Your task to perform on an android device: Open Google Chrome and open the bookmarks view Image 0: 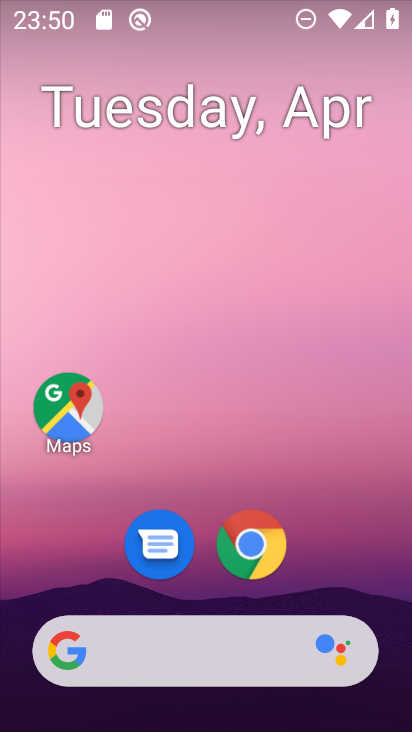
Step 0: drag from (366, 563) to (269, 76)
Your task to perform on an android device: Open Google Chrome and open the bookmarks view Image 1: 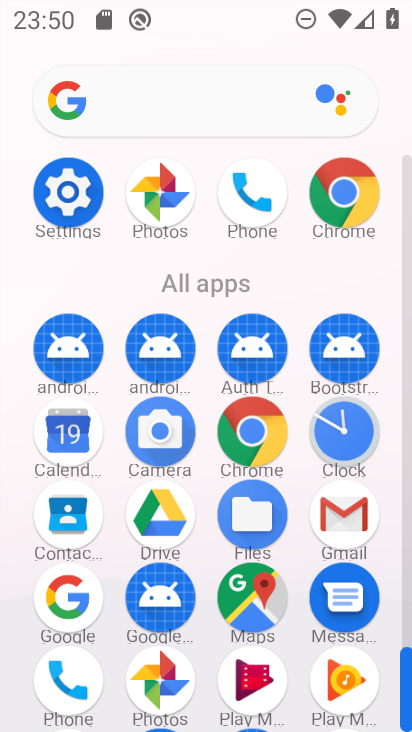
Step 1: click (361, 195)
Your task to perform on an android device: Open Google Chrome and open the bookmarks view Image 2: 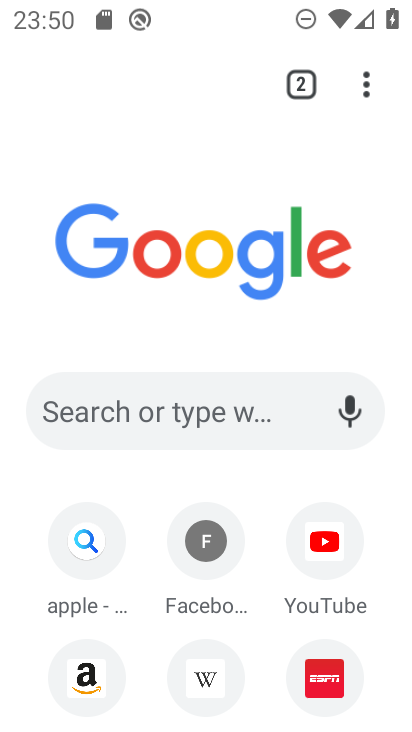
Step 2: click (361, 92)
Your task to perform on an android device: Open Google Chrome and open the bookmarks view Image 3: 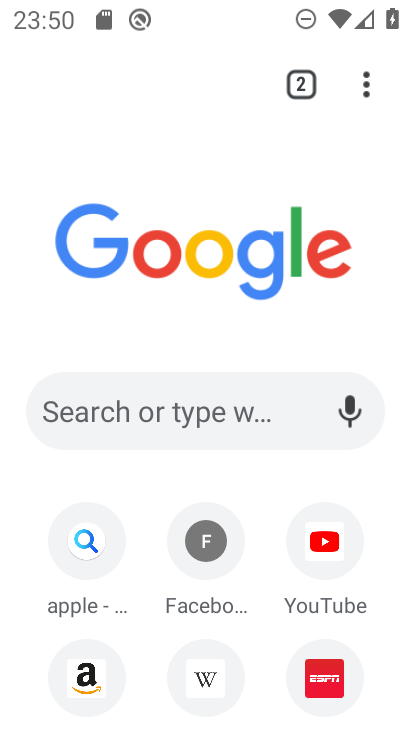
Step 3: click (368, 97)
Your task to perform on an android device: Open Google Chrome and open the bookmarks view Image 4: 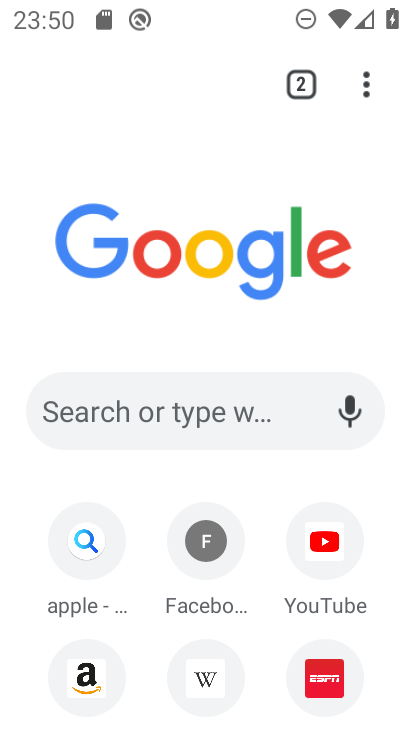
Step 4: click (371, 84)
Your task to perform on an android device: Open Google Chrome and open the bookmarks view Image 5: 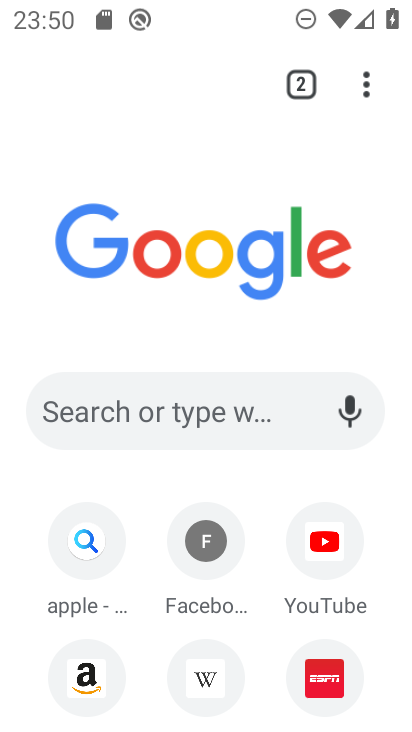
Step 5: click (371, 84)
Your task to perform on an android device: Open Google Chrome and open the bookmarks view Image 6: 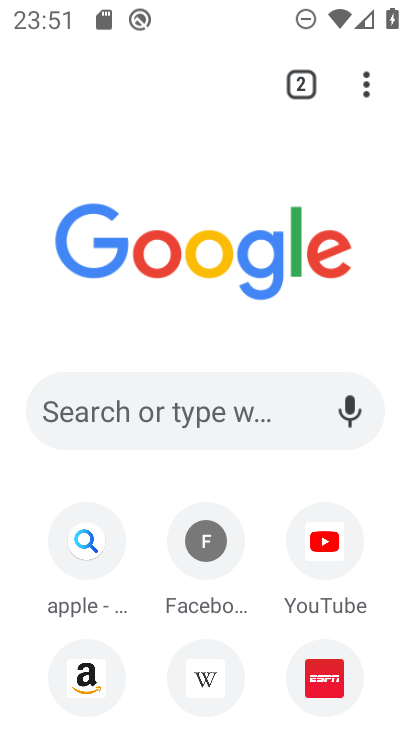
Step 6: click (369, 88)
Your task to perform on an android device: Open Google Chrome and open the bookmarks view Image 7: 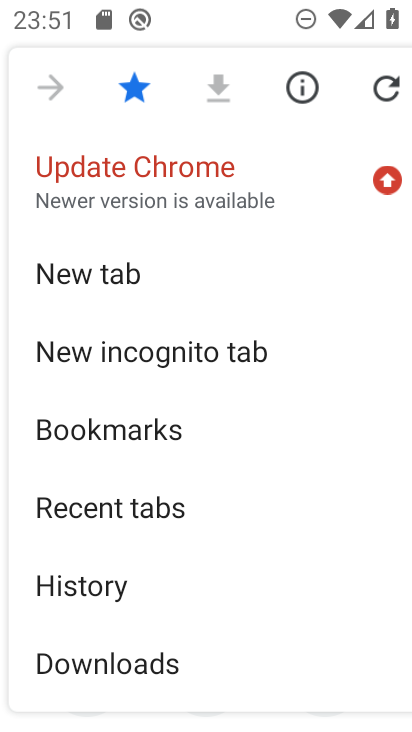
Step 7: click (179, 438)
Your task to perform on an android device: Open Google Chrome and open the bookmarks view Image 8: 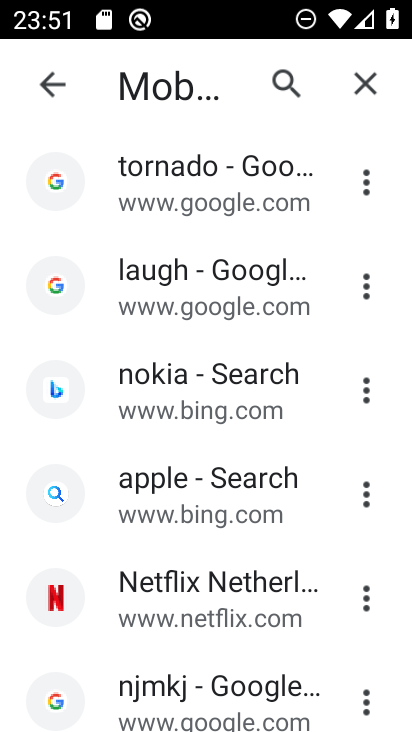
Step 8: task complete